Your task to perform on an android device: Open internet settings Image 0: 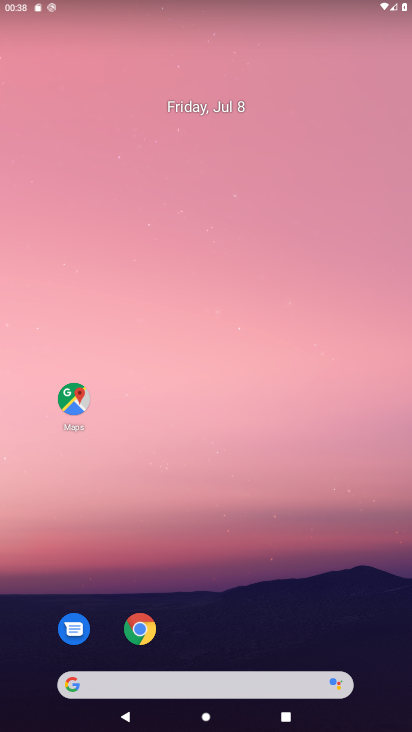
Step 0: drag from (353, 533) to (321, 27)
Your task to perform on an android device: Open internet settings Image 1: 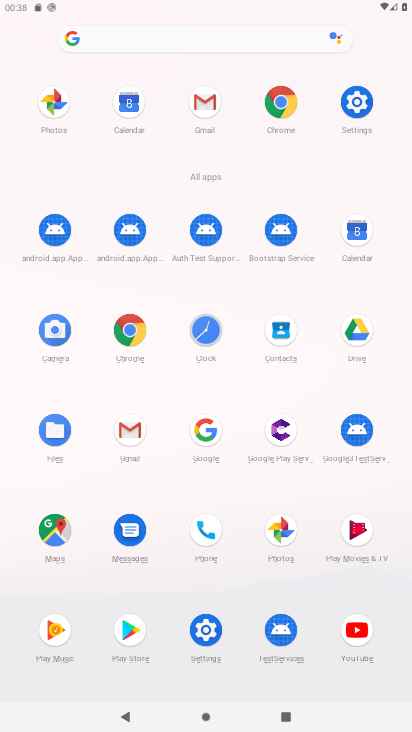
Step 1: click (355, 100)
Your task to perform on an android device: Open internet settings Image 2: 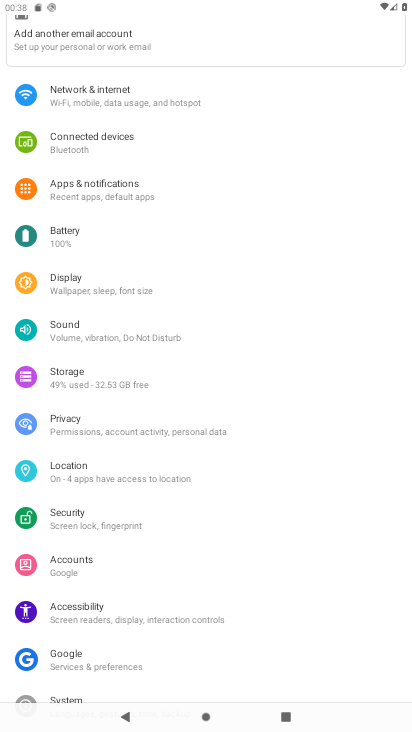
Step 2: click (117, 94)
Your task to perform on an android device: Open internet settings Image 3: 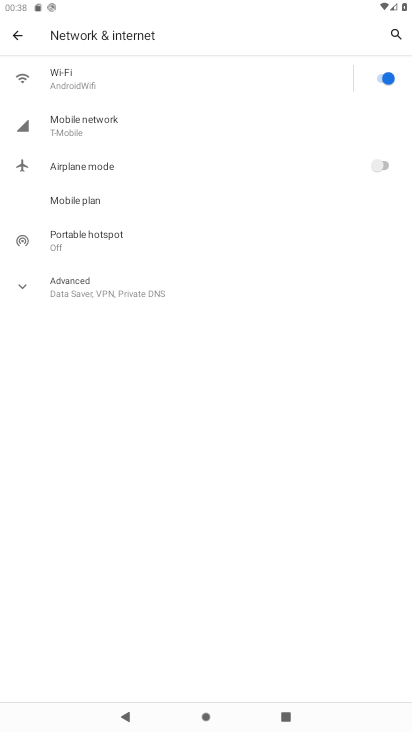
Step 3: click (134, 124)
Your task to perform on an android device: Open internet settings Image 4: 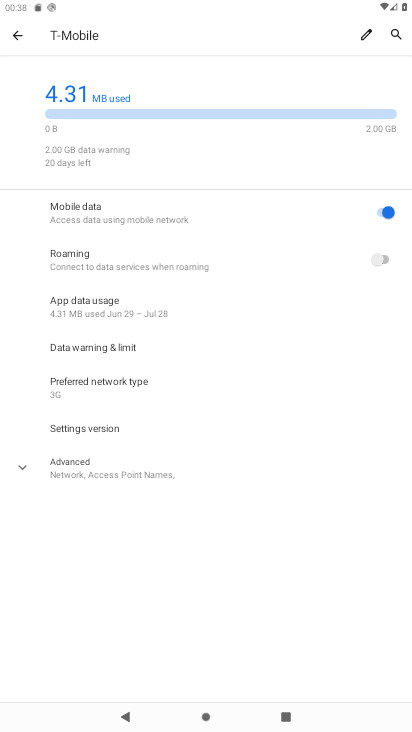
Step 4: task complete